Your task to perform on an android device: remove spam from my inbox in the gmail app Image 0: 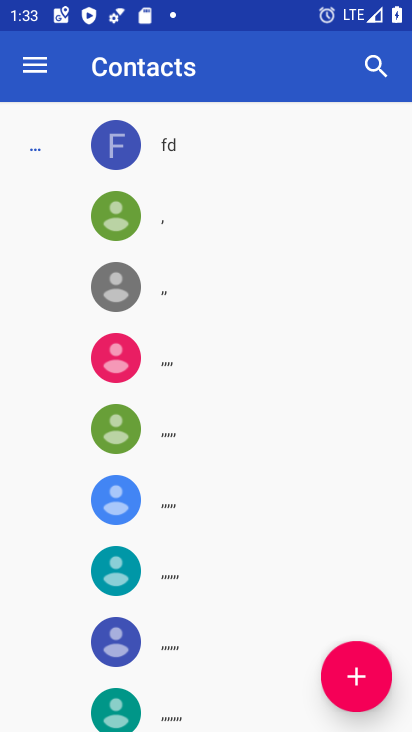
Step 0: press home button
Your task to perform on an android device: remove spam from my inbox in the gmail app Image 1: 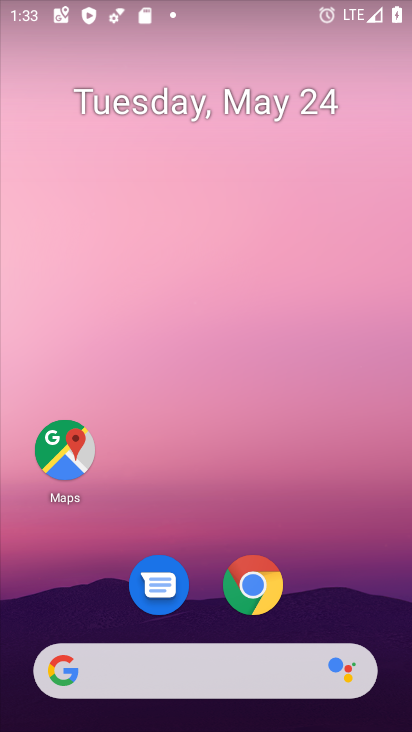
Step 1: drag from (206, 480) to (219, 37)
Your task to perform on an android device: remove spam from my inbox in the gmail app Image 2: 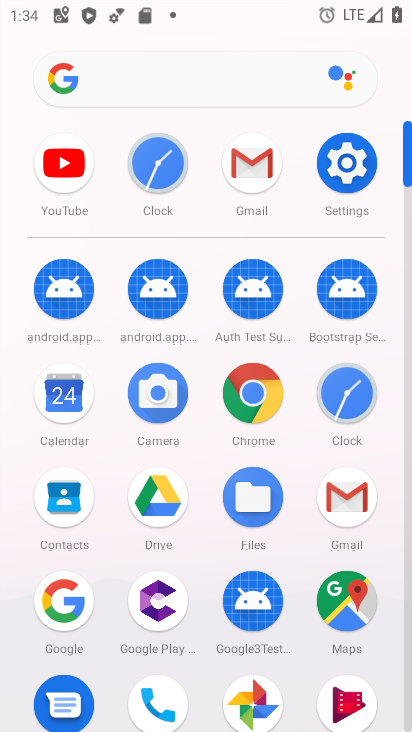
Step 2: click (249, 163)
Your task to perform on an android device: remove spam from my inbox in the gmail app Image 3: 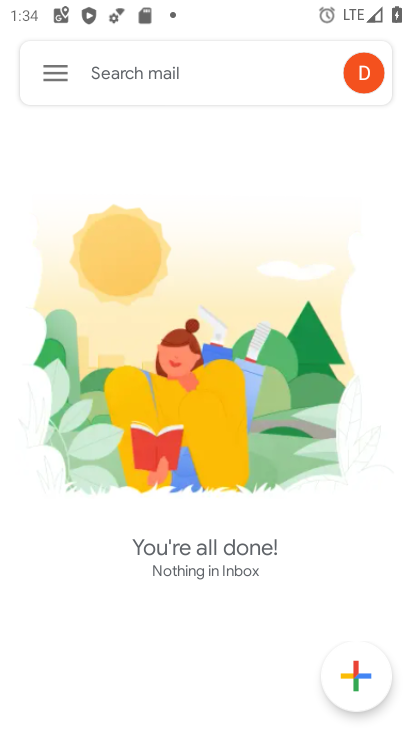
Step 3: click (54, 71)
Your task to perform on an android device: remove spam from my inbox in the gmail app Image 4: 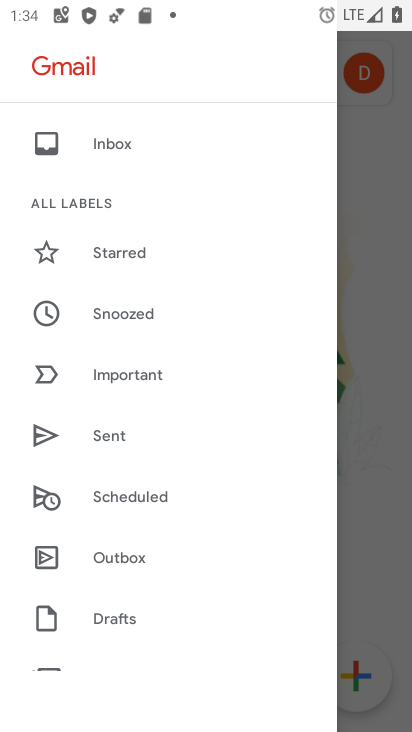
Step 4: drag from (161, 506) to (189, 223)
Your task to perform on an android device: remove spam from my inbox in the gmail app Image 5: 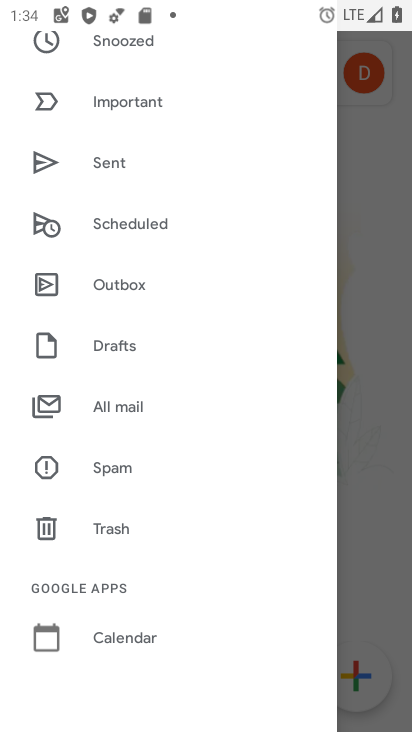
Step 5: click (128, 460)
Your task to perform on an android device: remove spam from my inbox in the gmail app Image 6: 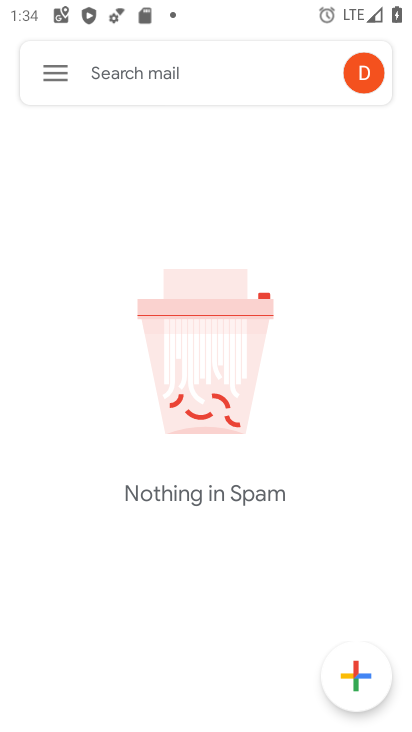
Step 6: task complete